Your task to perform on an android device: change the clock display to analog Image 0: 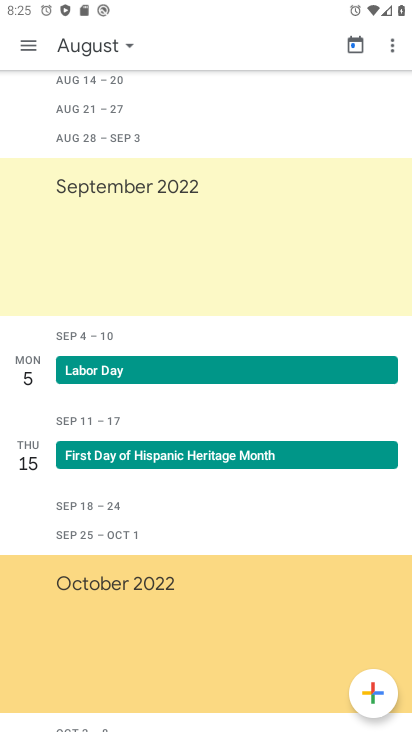
Step 0: press home button
Your task to perform on an android device: change the clock display to analog Image 1: 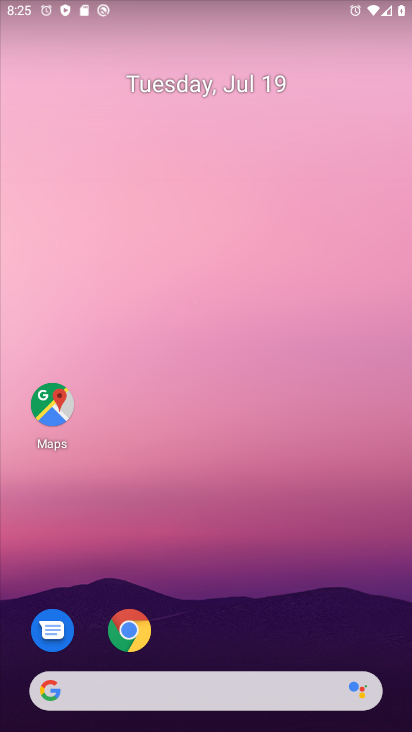
Step 1: drag from (268, 642) to (276, 289)
Your task to perform on an android device: change the clock display to analog Image 2: 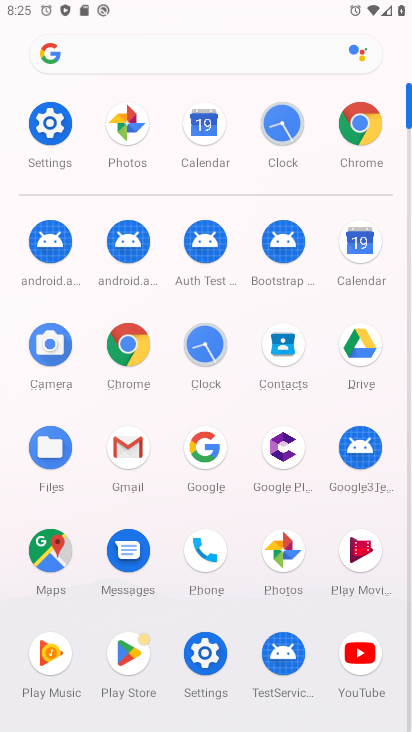
Step 2: click (280, 123)
Your task to perform on an android device: change the clock display to analog Image 3: 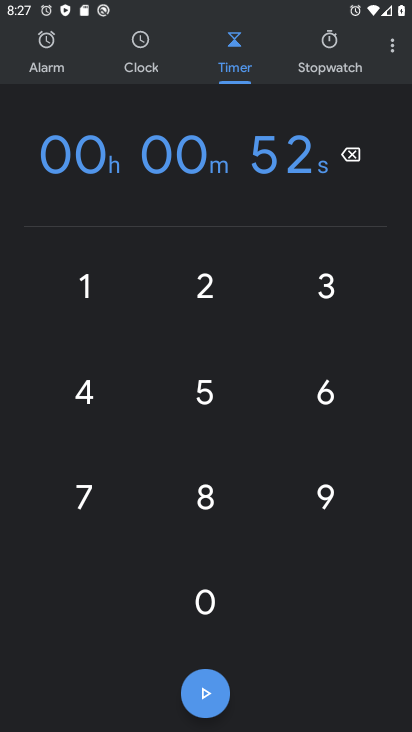
Step 3: click (387, 45)
Your task to perform on an android device: change the clock display to analog Image 4: 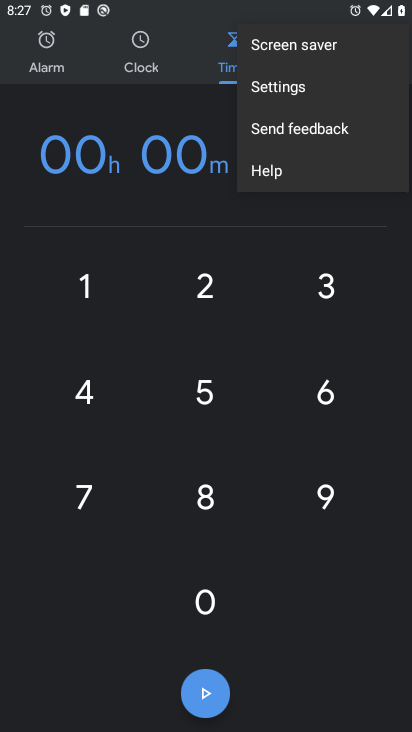
Step 4: click (137, 48)
Your task to perform on an android device: change the clock display to analog Image 5: 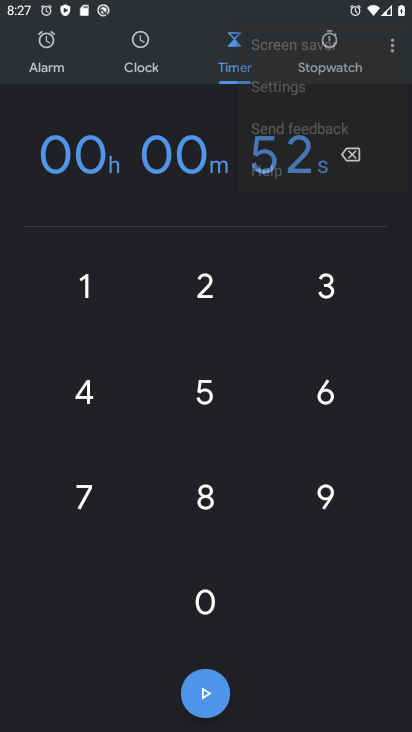
Step 5: click (137, 48)
Your task to perform on an android device: change the clock display to analog Image 6: 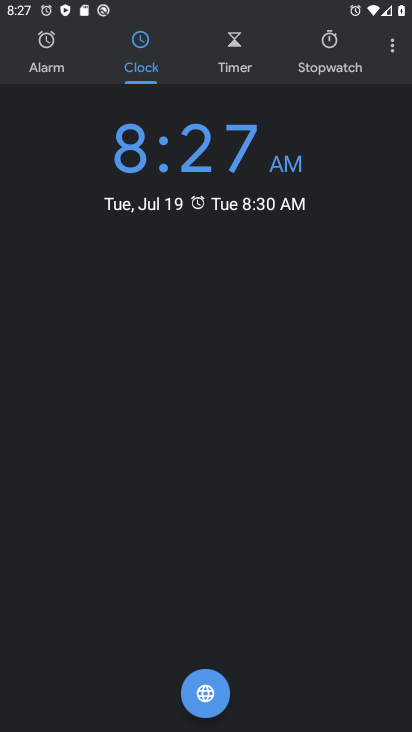
Step 6: click (389, 43)
Your task to perform on an android device: change the clock display to analog Image 7: 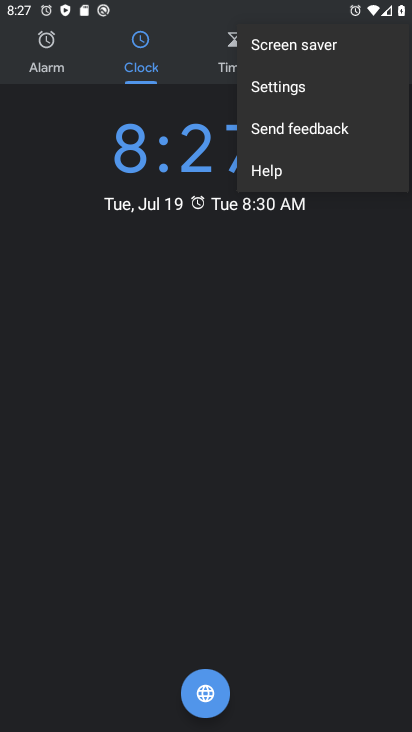
Step 7: click (279, 90)
Your task to perform on an android device: change the clock display to analog Image 8: 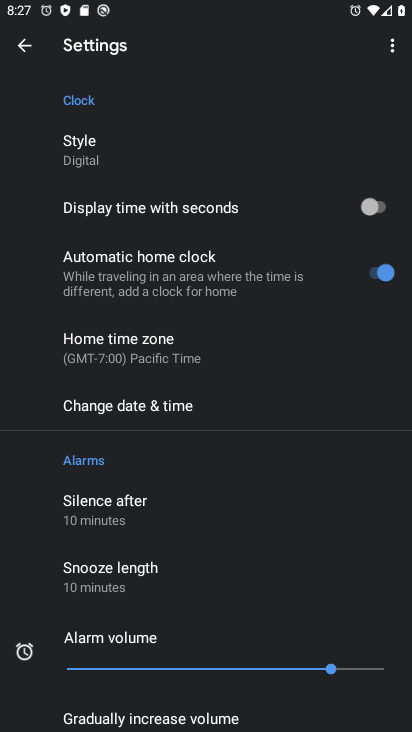
Step 8: click (86, 150)
Your task to perform on an android device: change the clock display to analog Image 9: 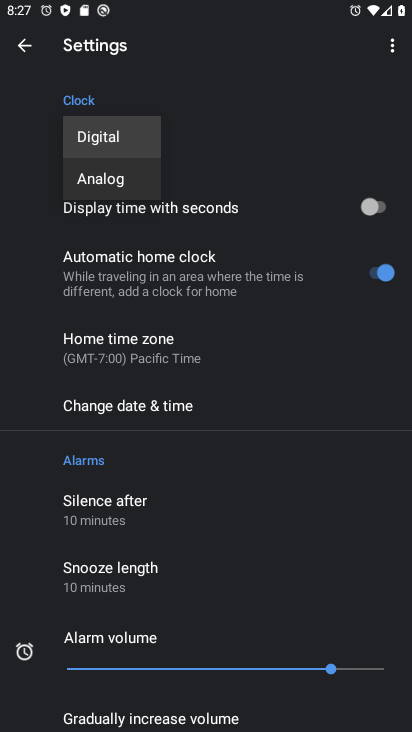
Step 9: click (96, 183)
Your task to perform on an android device: change the clock display to analog Image 10: 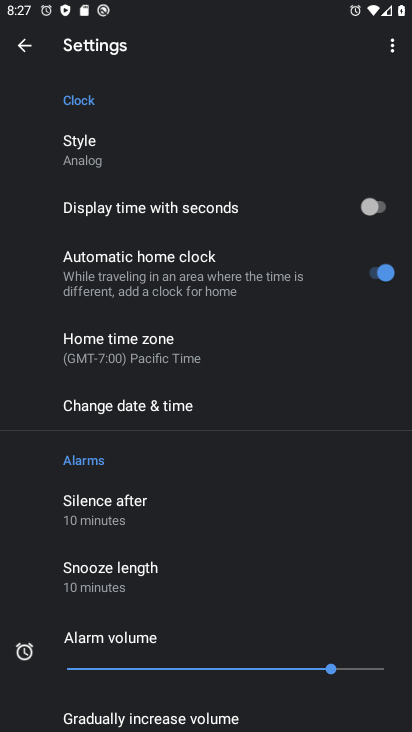
Step 10: task complete